Your task to perform on an android device: set default search engine in the chrome app Image 0: 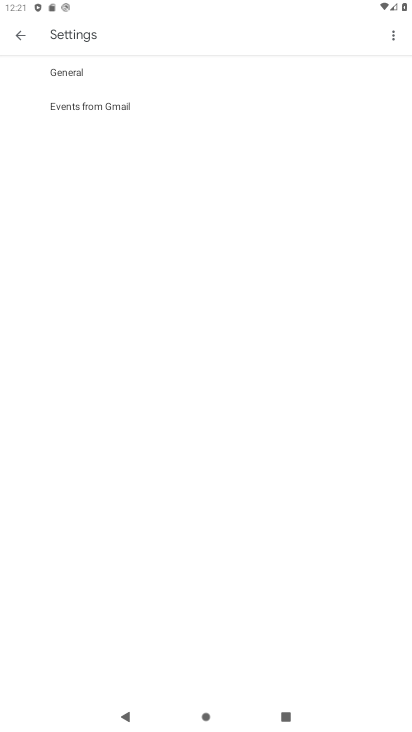
Step 0: press home button
Your task to perform on an android device: set default search engine in the chrome app Image 1: 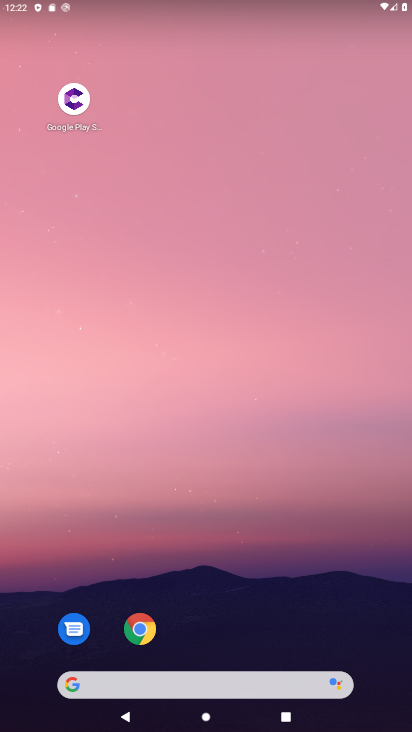
Step 1: click (139, 626)
Your task to perform on an android device: set default search engine in the chrome app Image 2: 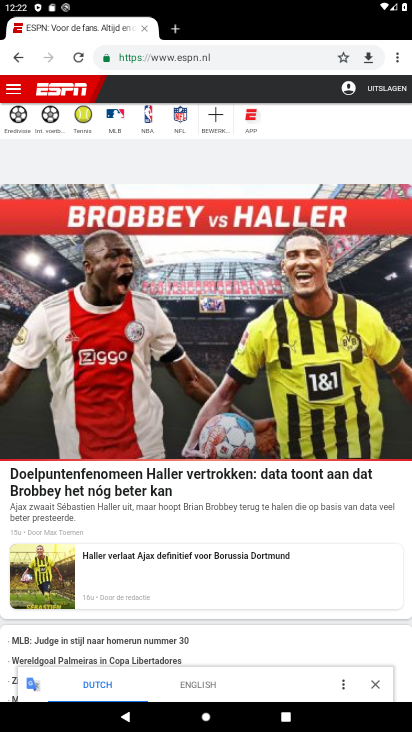
Step 2: click (397, 59)
Your task to perform on an android device: set default search engine in the chrome app Image 3: 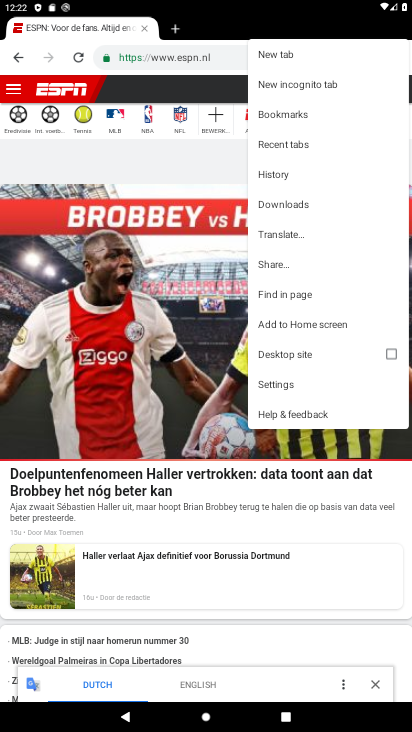
Step 3: click (281, 382)
Your task to perform on an android device: set default search engine in the chrome app Image 4: 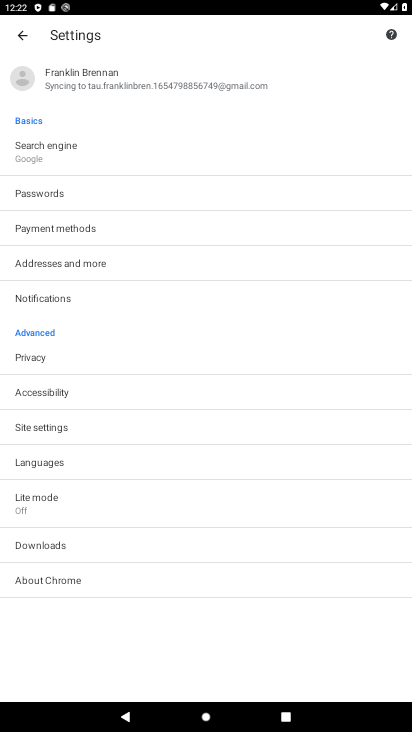
Step 4: click (63, 148)
Your task to perform on an android device: set default search engine in the chrome app Image 5: 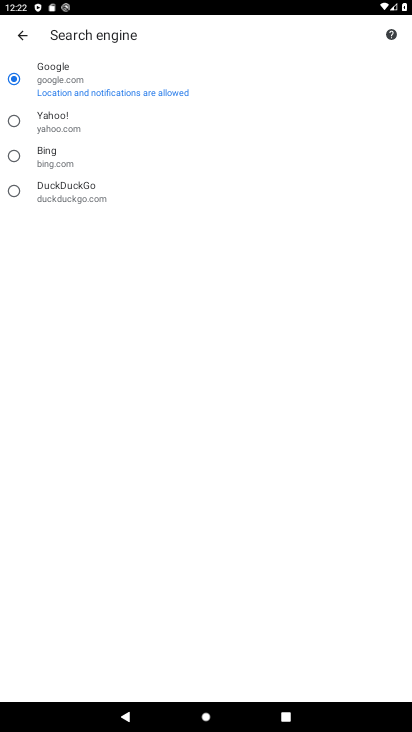
Step 5: click (15, 121)
Your task to perform on an android device: set default search engine in the chrome app Image 6: 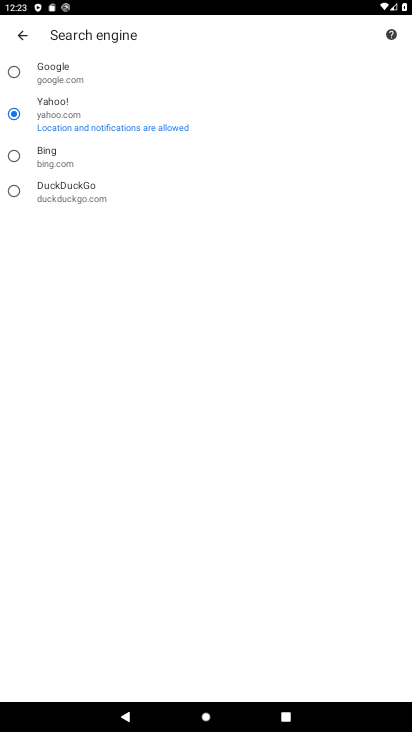
Step 6: task complete